Your task to perform on an android device: turn off sleep mode Image 0: 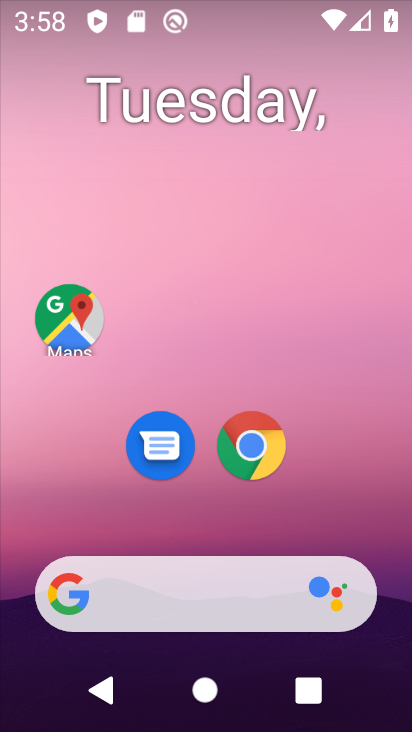
Step 0: drag from (341, 540) to (386, 297)
Your task to perform on an android device: turn off sleep mode Image 1: 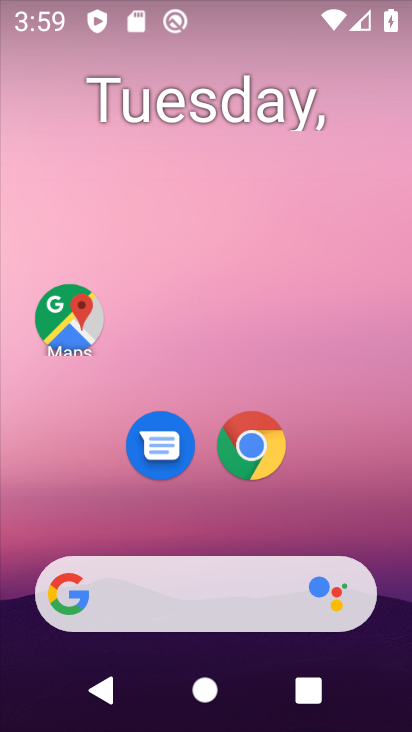
Step 1: drag from (276, 9) to (319, 417)
Your task to perform on an android device: turn off sleep mode Image 2: 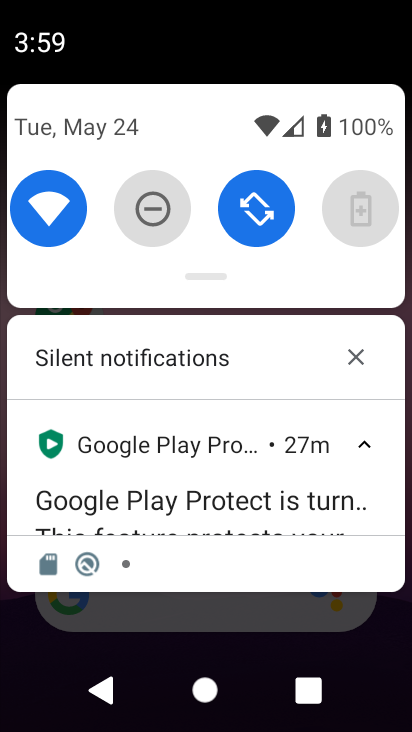
Step 2: drag from (204, 269) to (175, 588)
Your task to perform on an android device: turn off sleep mode Image 3: 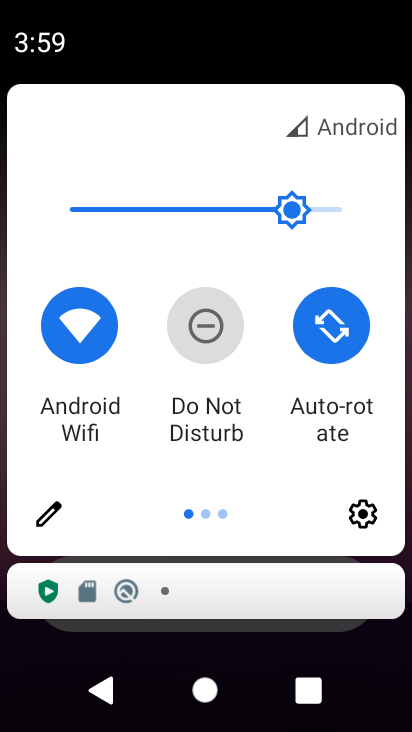
Step 3: click (54, 512)
Your task to perform on an android device: turn off sleep mode Image 4: 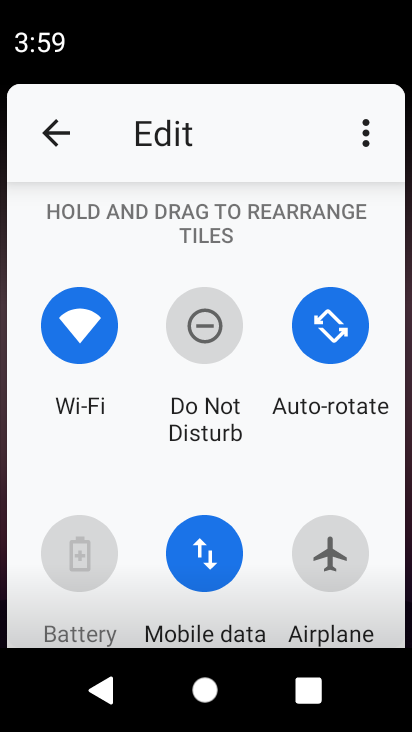
Step 4: task complete